Your task to perform on an android device: turn off location Image 0: 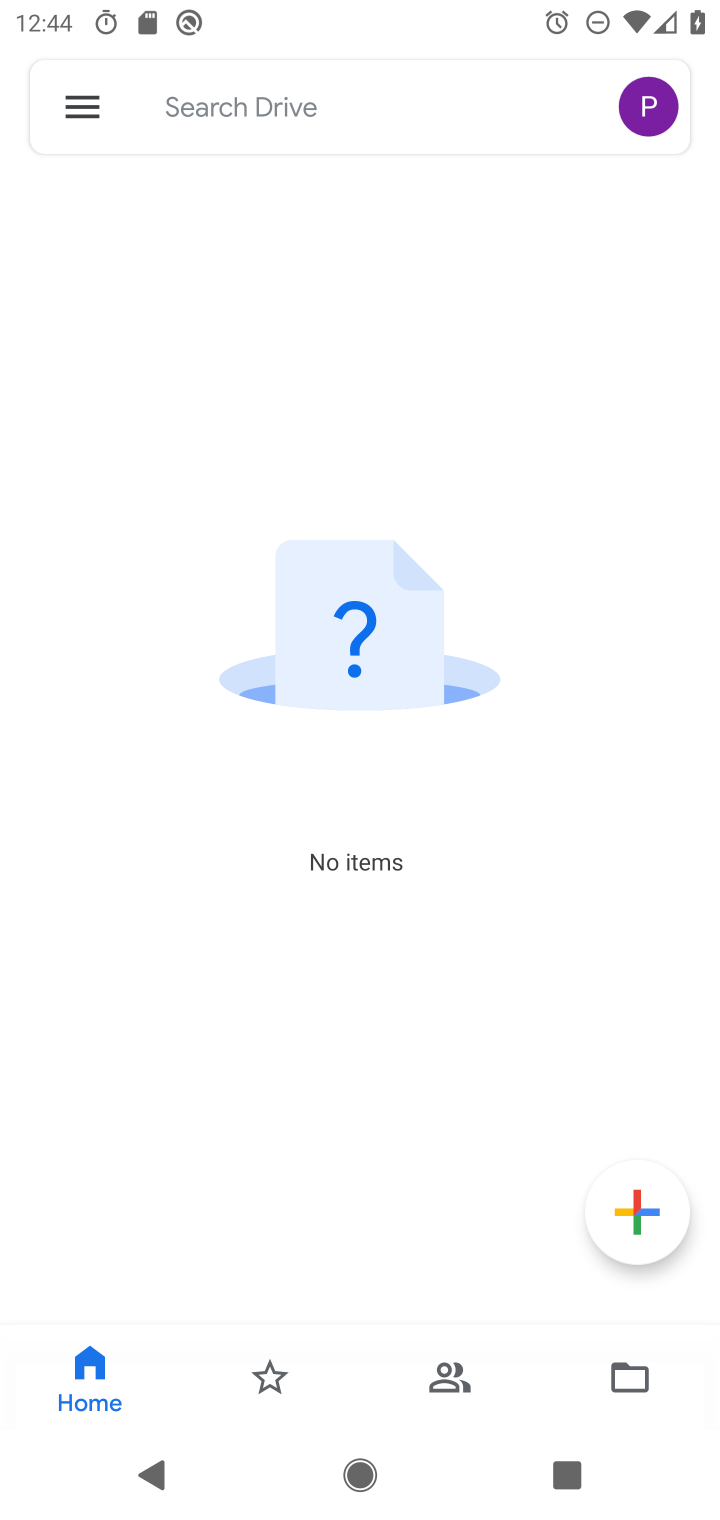
Step 0: press home button
Your task to perform on an android device: turn off location Image 1: 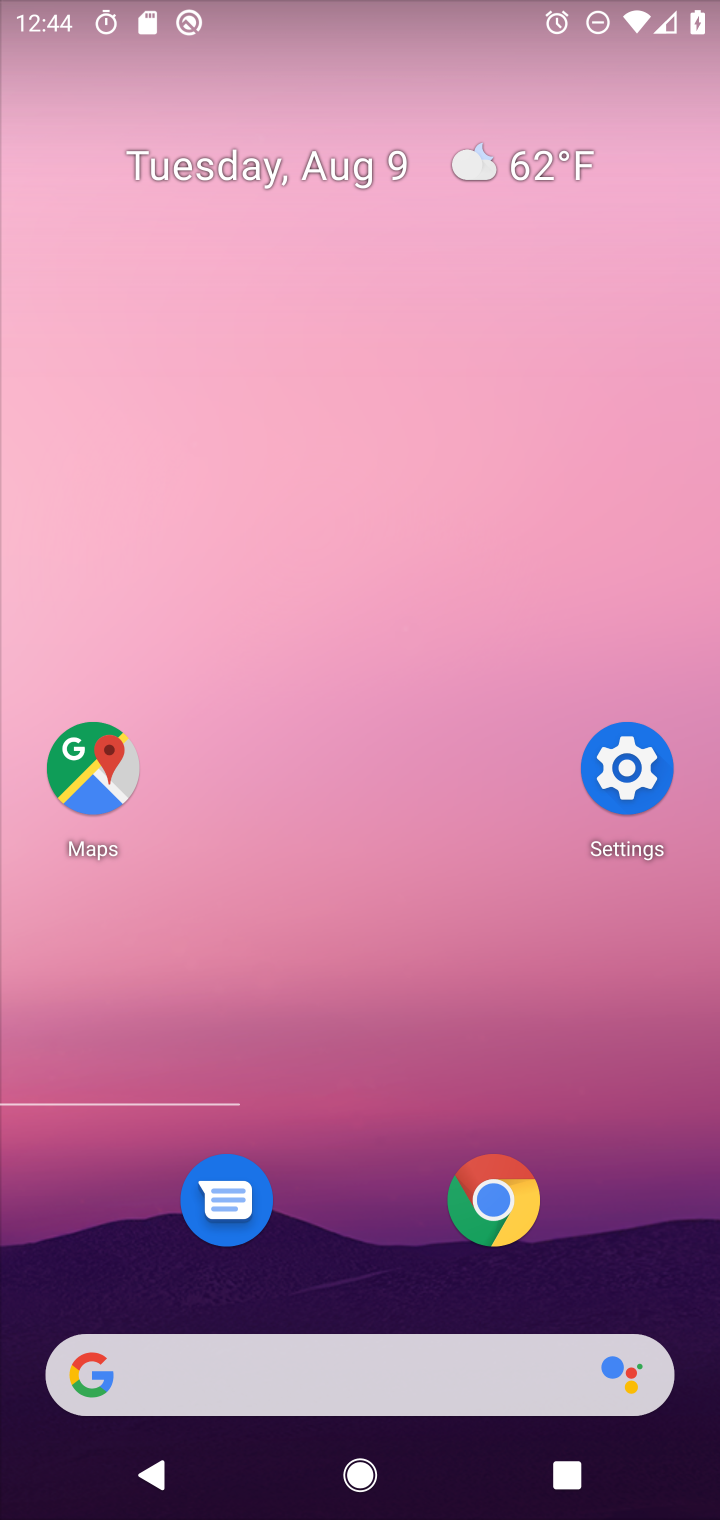
Step 1: click (616, 761)
Your task to perform on an android device: turn off location Image 2: 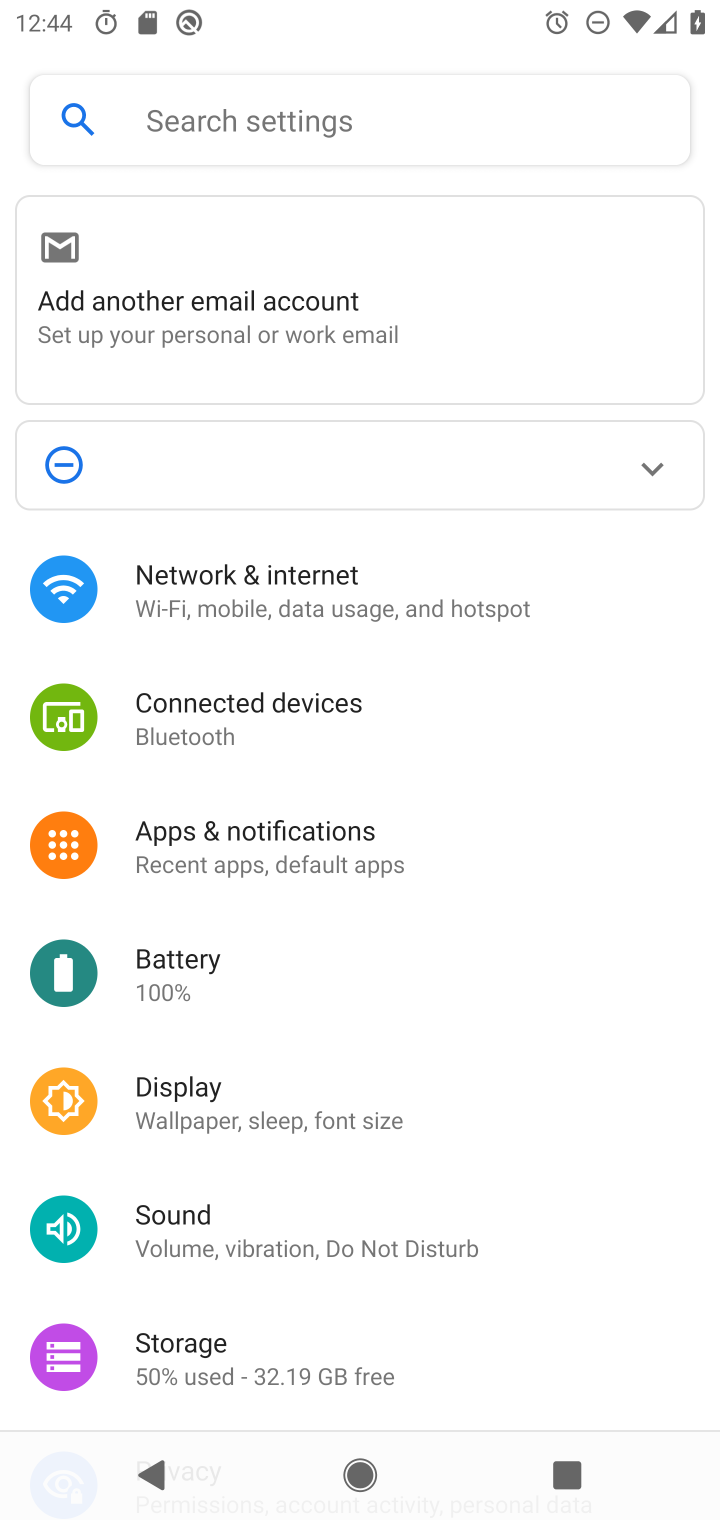
Step 2: drag from (259, 1223) to (557, 407)
Your task to perform on an android device: turn off location Image 3: 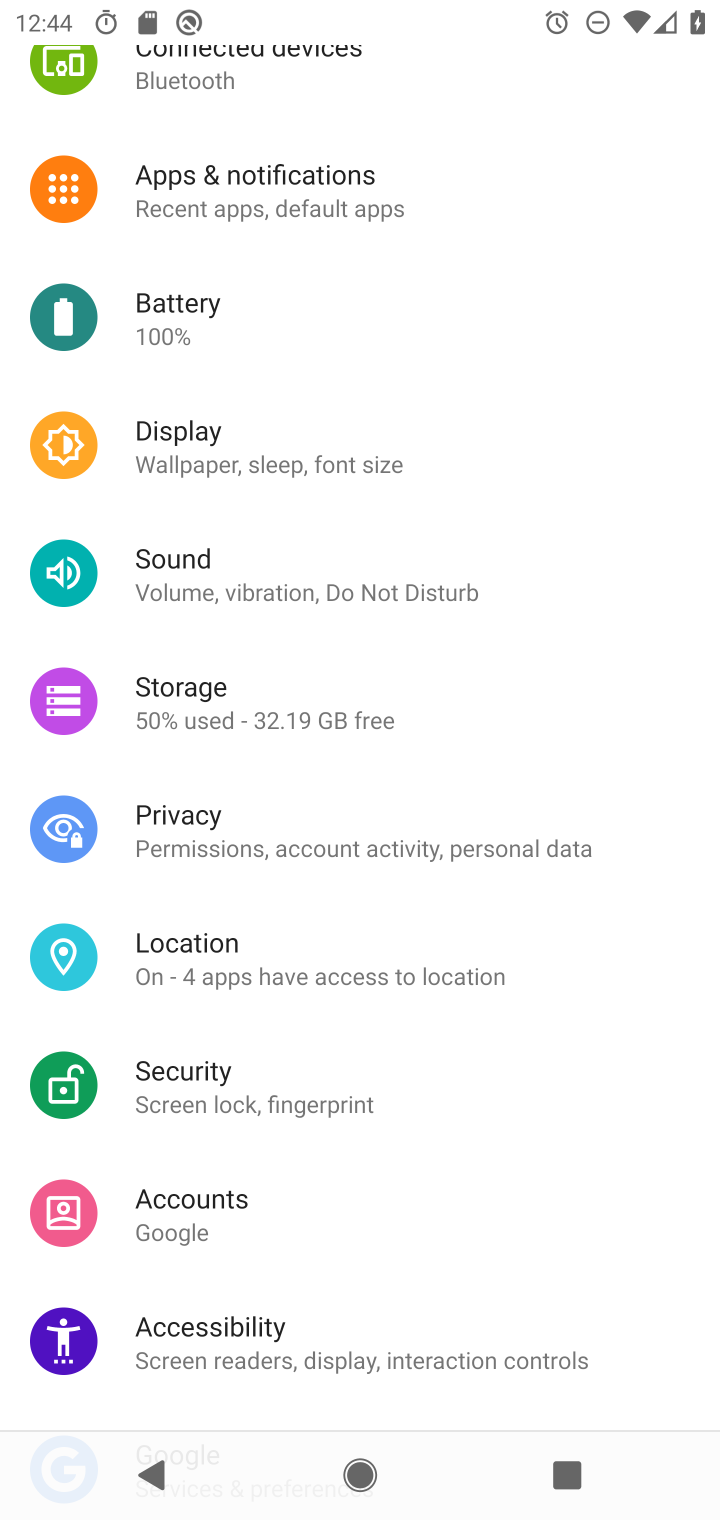
Step 3: click (246, 960)
Your task to perform on an android device: turn off location Image 4: 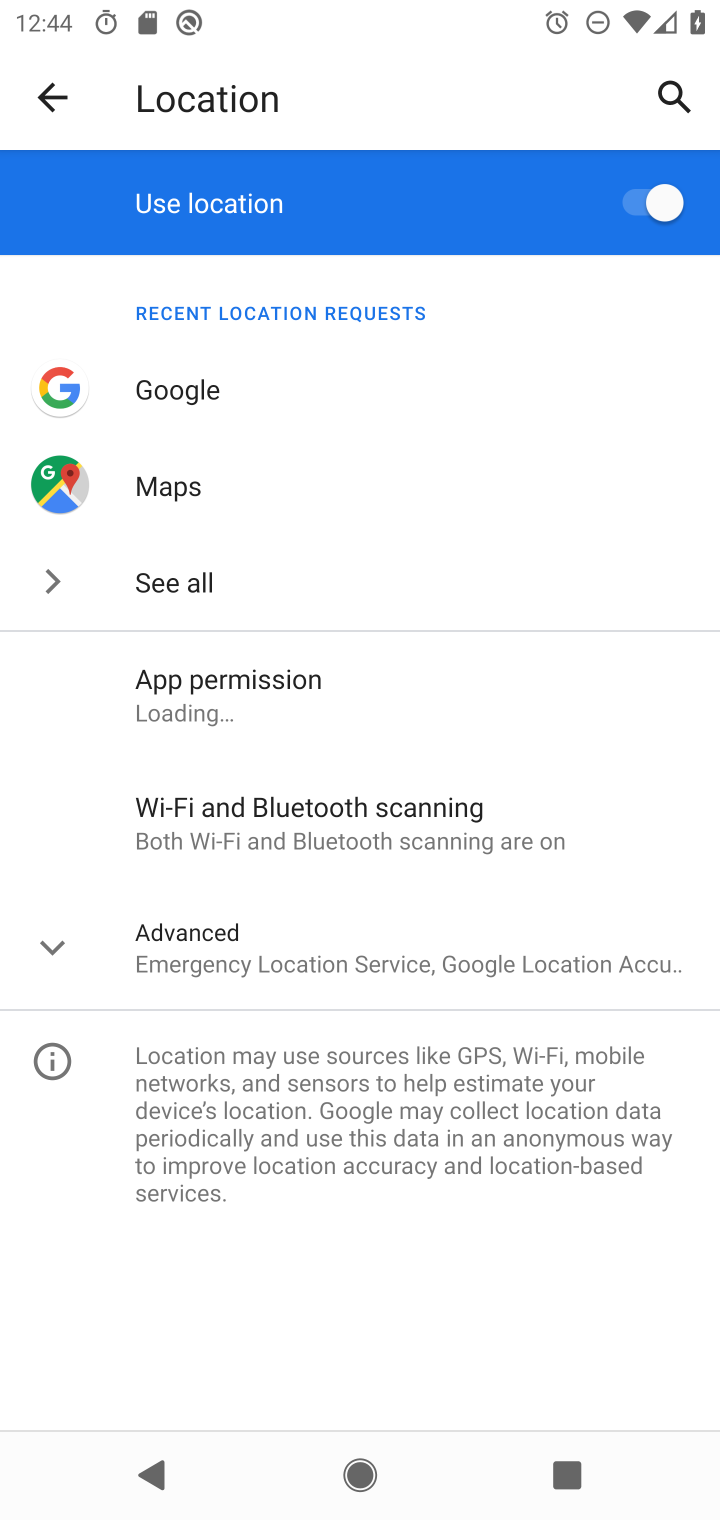
Step 4: click (635, 209)
Your task to perform on an android device: turn off location Image 5: 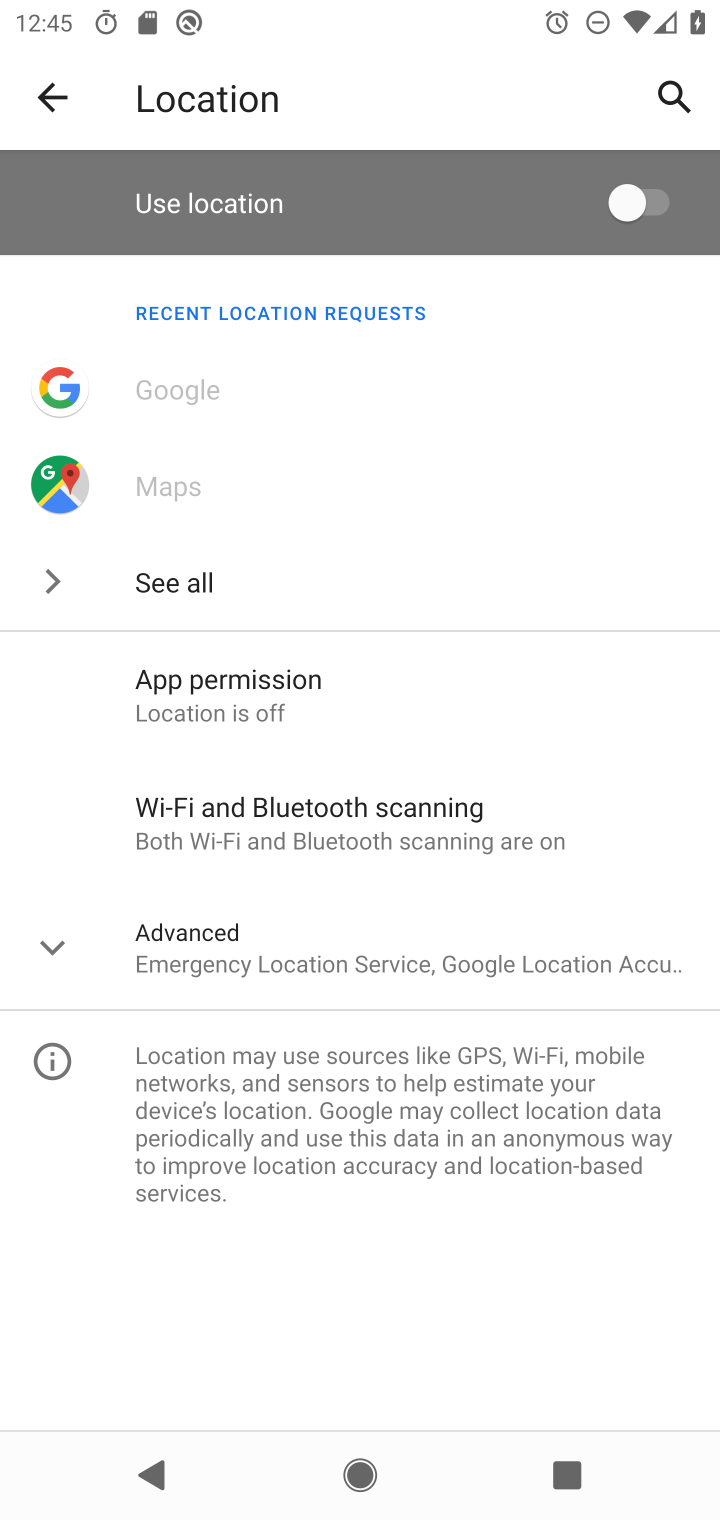
Step 5: task complete